Your task to perform on an android device: Go to battery settings Image 0: 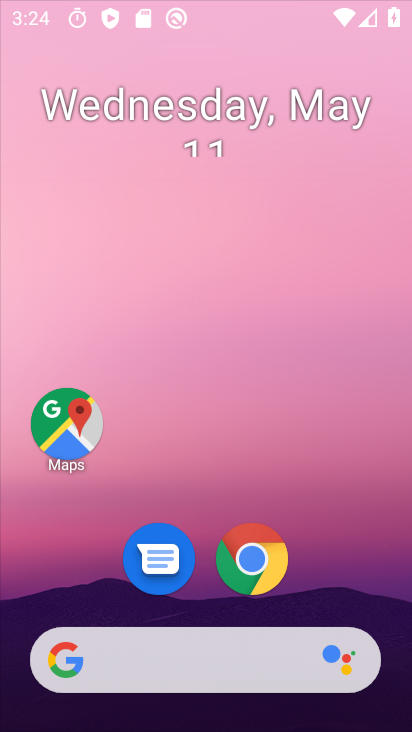
Step 0: press back button
Your task to perform on an android device: Go to battery settings Image 1: 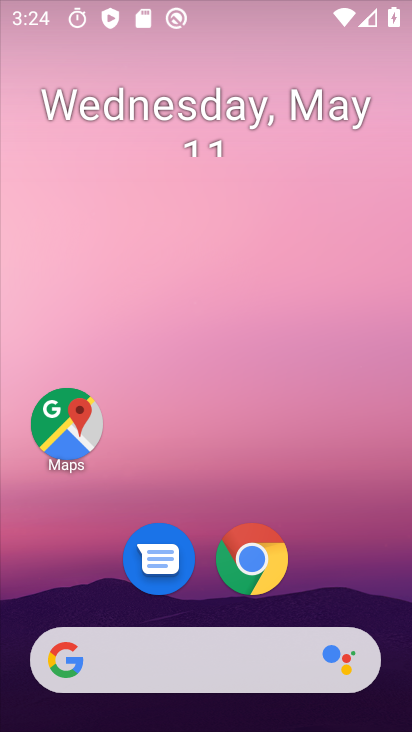
Step 1: click (220, 110)
Your task to perform on an android device: Go to battery settings Image 2: 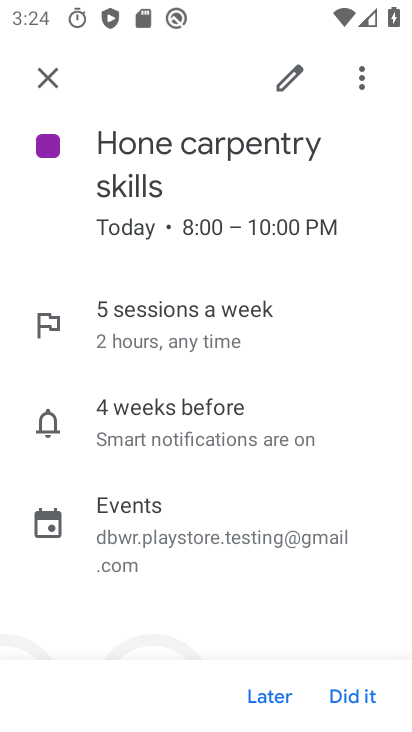
Step 2: click (37, 77)
Your task to perform on an android device: Go to battery settings Image 3: 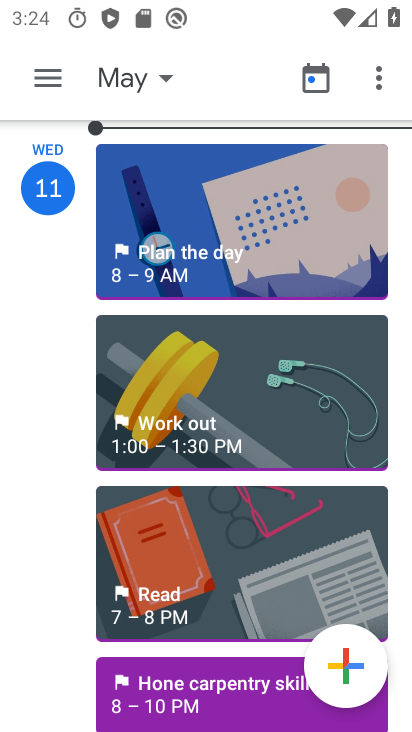
Step 3: click (378, 78)
Your task to perform on an android device: Go to battery settings Image 4: 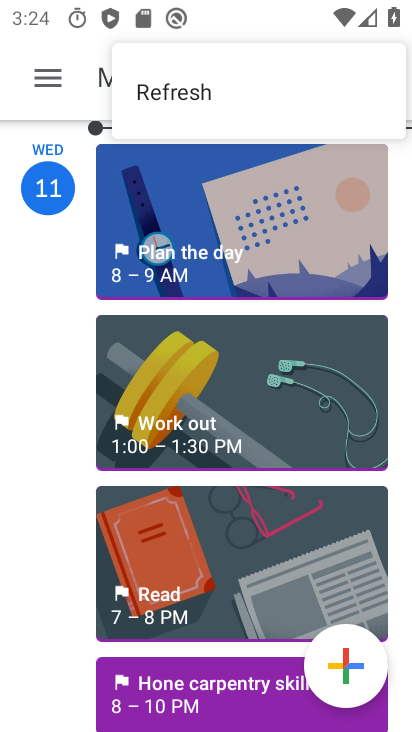
Step 4: click (309, 306)
Your task to perform on an android device: Go to battery settings Image 5: 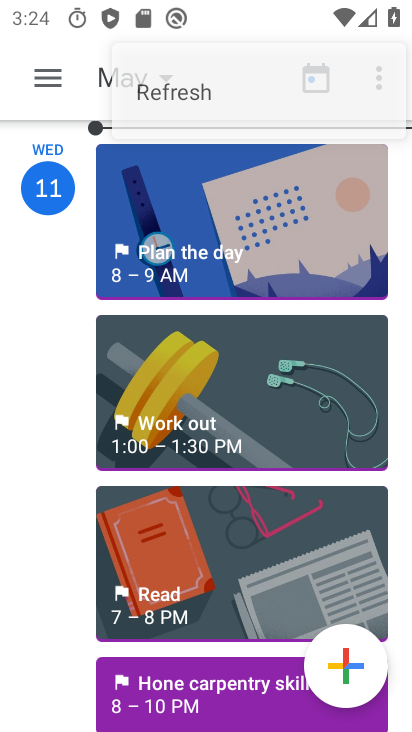
Step 5: click (304, 259)
Your task to perform on an android device: Go to battery settings Image 6: 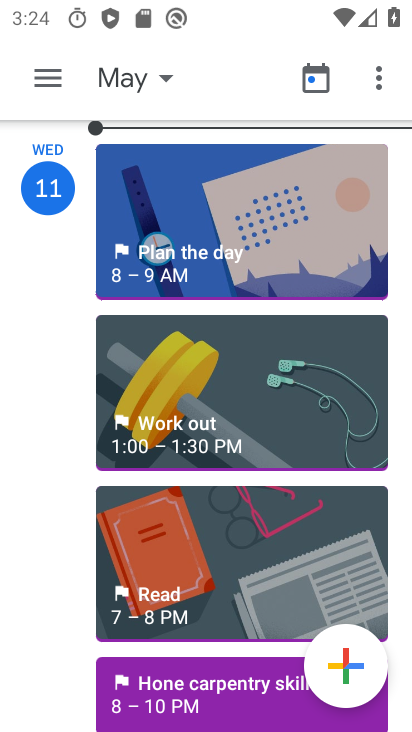
Step 6: click (293, 221)
Your task to perform on an android device: Go to battery settings Image 7: 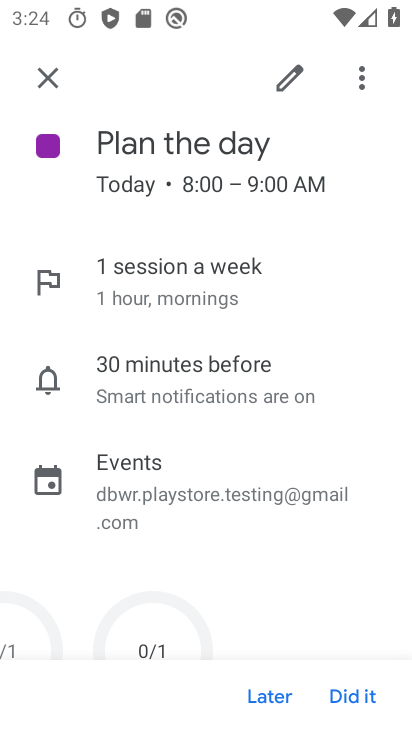
Step 7: press home button
Your task to perform on an android device: Go to battery settings Image 8: 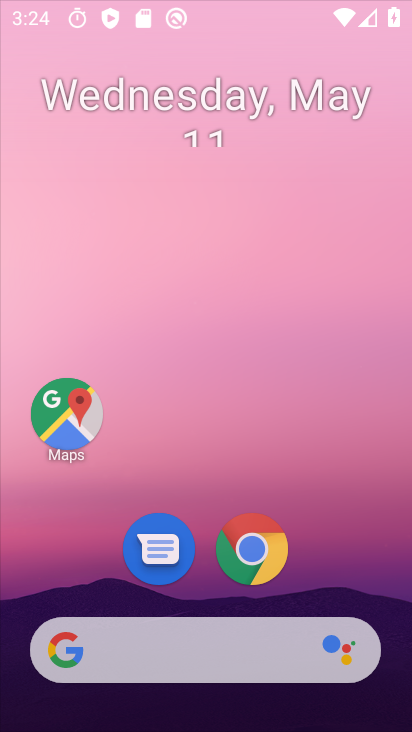
Step 8: press home button
Your task to perform on an android device: Go to battery settings Image 9: 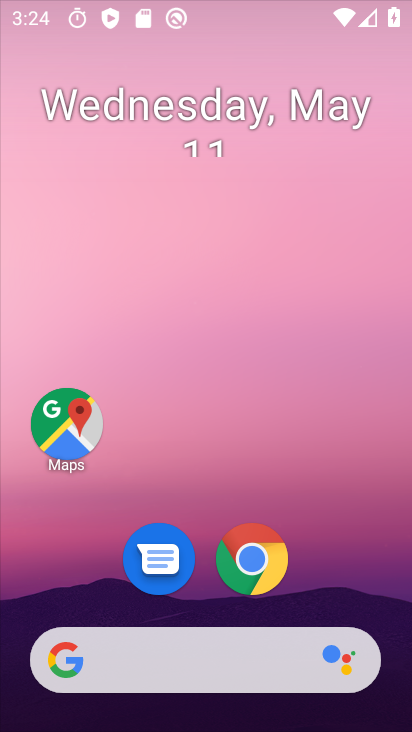
Step 9: press home button
Your task to perform on an android device: Go to battery settings Image 10: 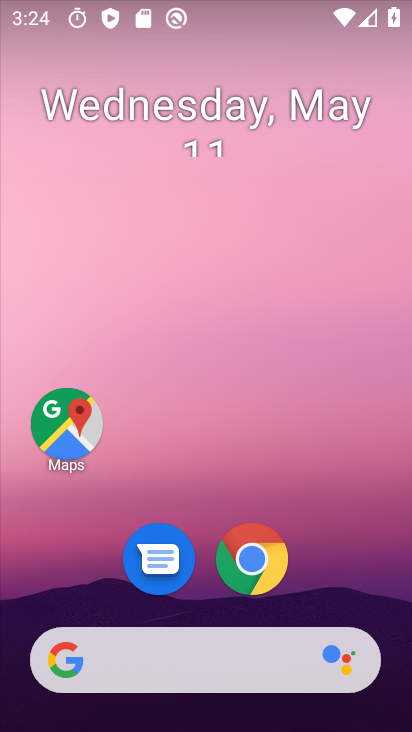
Step 10: drag from (371, 574) to (27, 36)
Your task to perform on an android device: Go to battery settings Image 11: 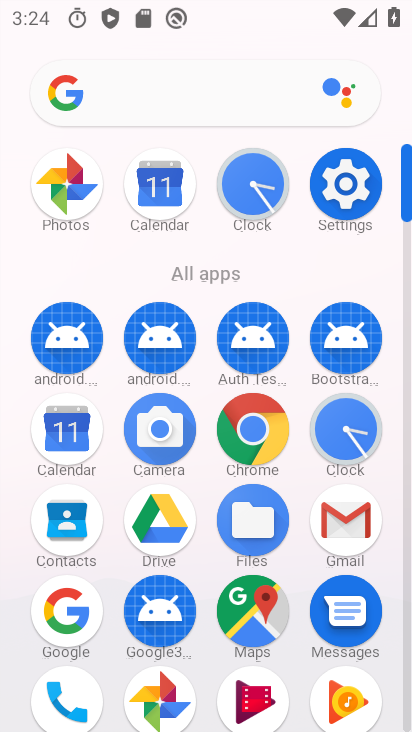
Step 11: click (358, 183)
Your task to perform on an android device: Go to battery settings Image 12: 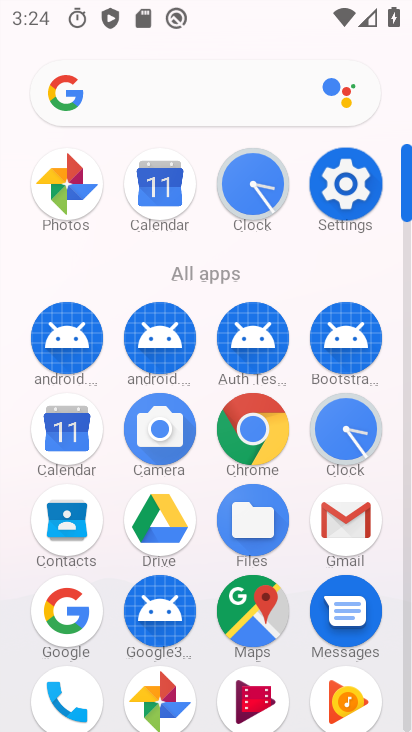
Step 12: click (354, 183)
Your task to perform on an android device: Go to battery settings Image 13: 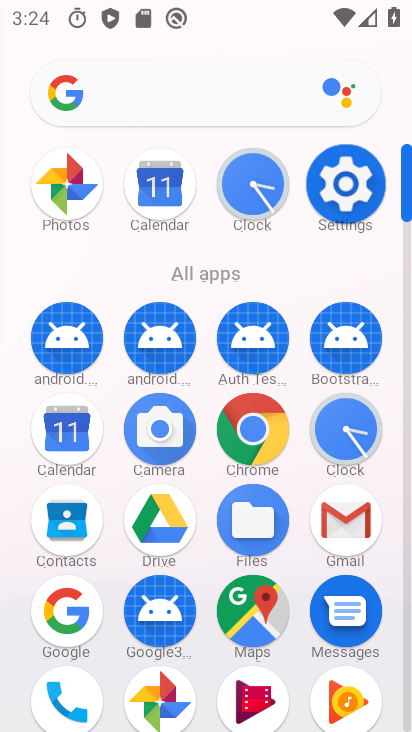
Step 13: click (353, 183)
Your task to perform on an android device: Go to battery settings Image 14: 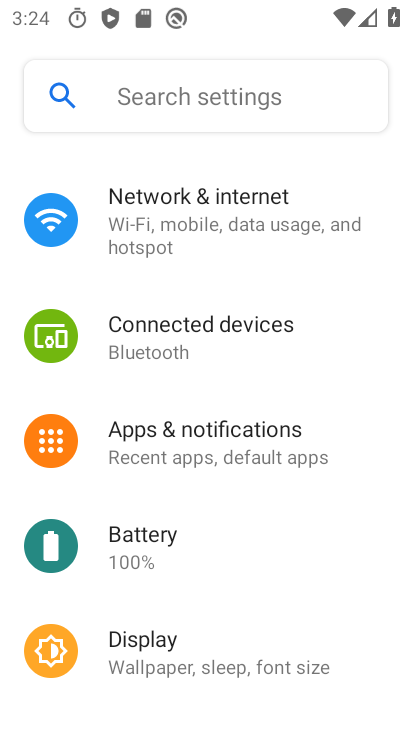
Step 14: click (353, 183)
Your task to perform on an android device: Go to battery settings Image 15: 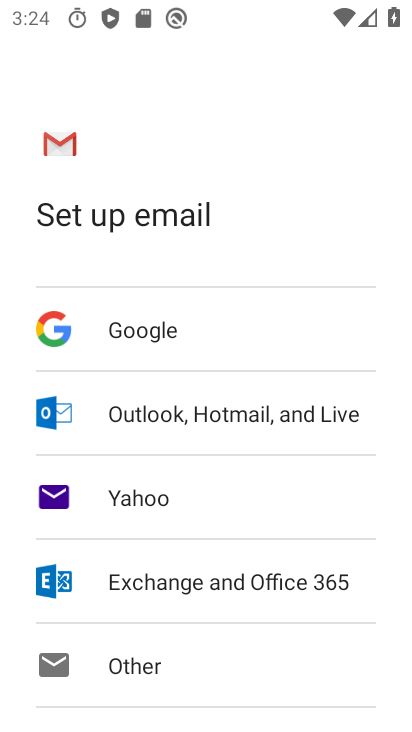
Step 15: press back button
Your task to perform on an android device: Go to battery settings Image 16: 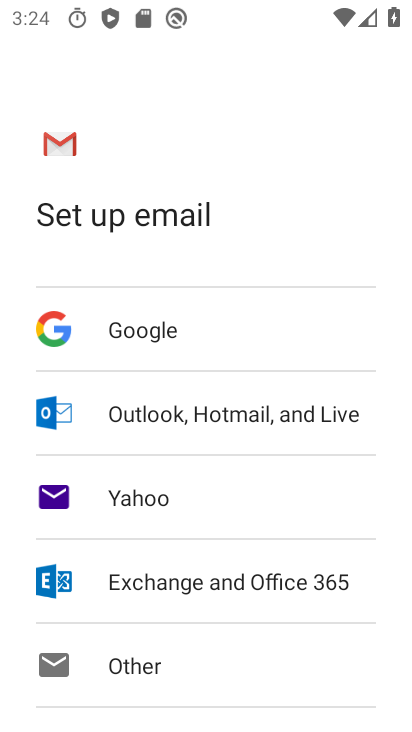
Step 16: press back button
Your task to perform on an android device: Go to battery settings Image 17: 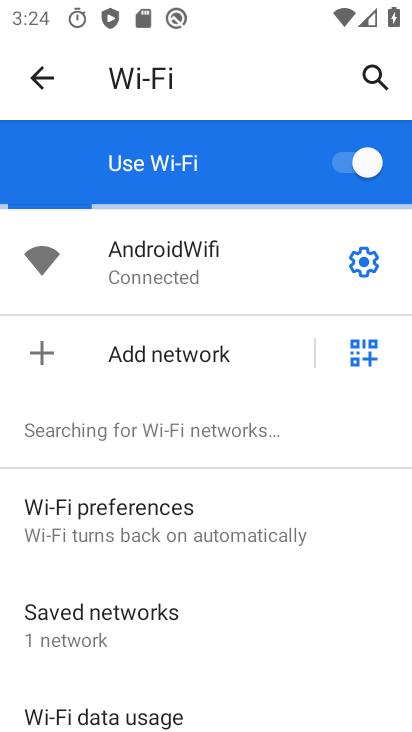
Step 17: press home button
Your task to perform on an android device: Go to battery settings Image 18: 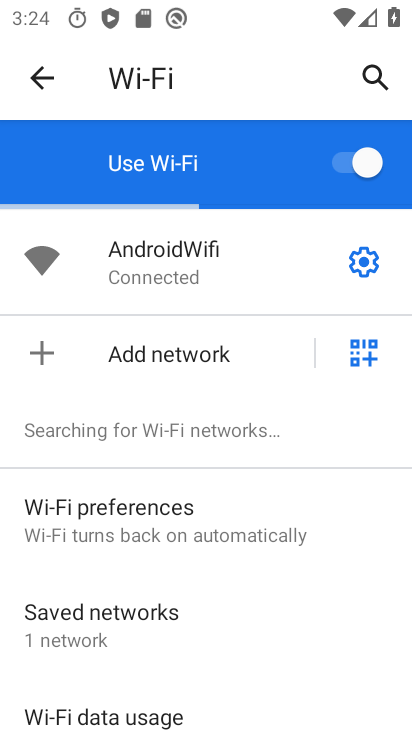
Step 18: press home button
Your task to perform on an android device: Go to battery settings Image 19: 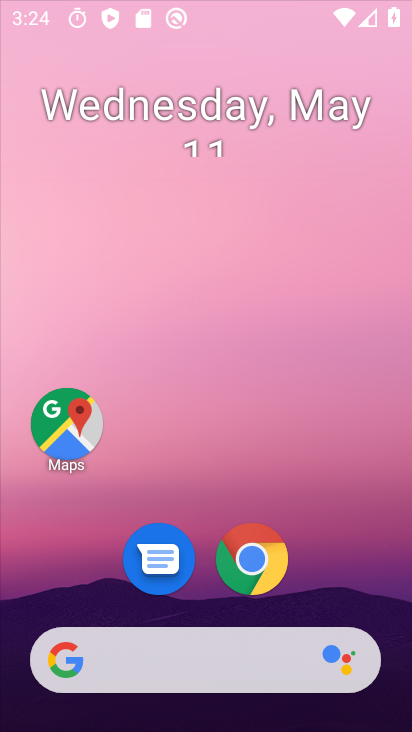
Step 19: press home button
Your task to perform on an android device: Go to battery settings Image 20: 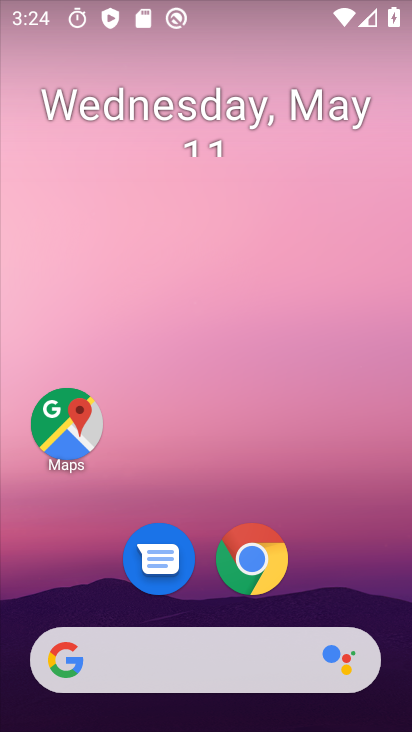
Step 20: drag from (276, 490) to (111, 52)
Your task to perform on an android device: Go to battery settings Image 21: 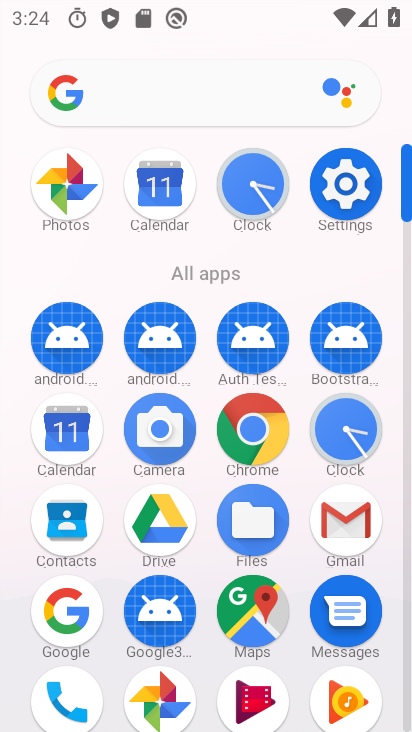
Step 21: click (335, 167)
Your task to perform on an android device: Go to battery settings Image 22: 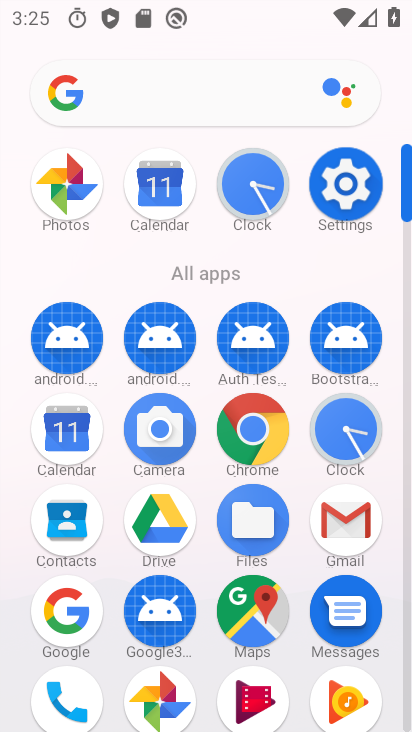
Step 22: click (337, 168)
Your task to perform on an android device: Go to battery settings Image 23: 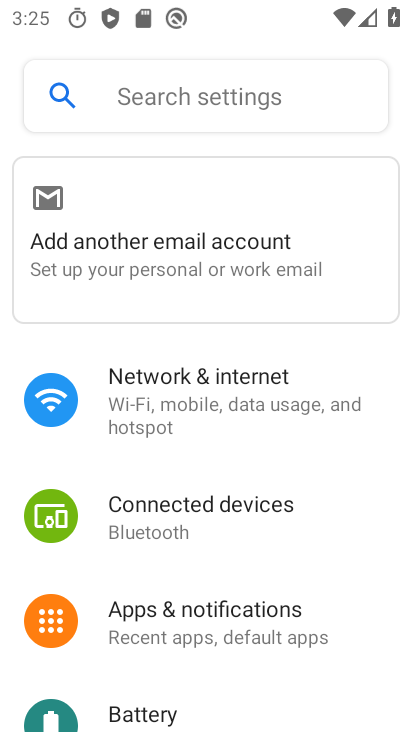
Step 23: drag from (228, 595) to (252, 176)
Your task to perform on an android device: Go to battery settings Image 24: 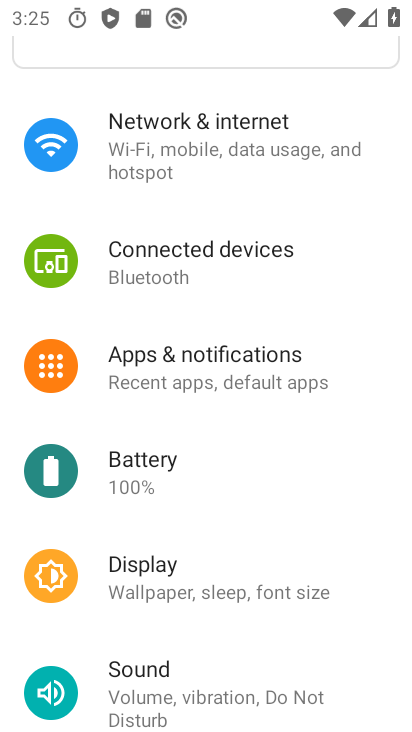
Step 24: drag from (180, 463) to (90, 167)
Your task to perform on an android device: Go to battery settings Image 25: 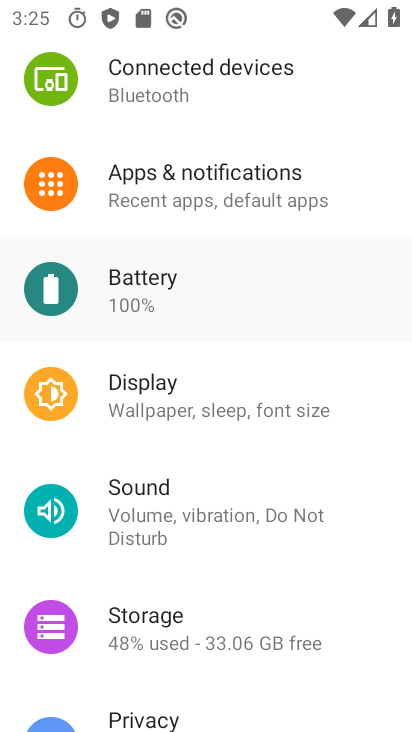
Step 25: drag from (157, 481) to (54, 61)
Your task to perform on an android device: Go to battery settings Image 26: 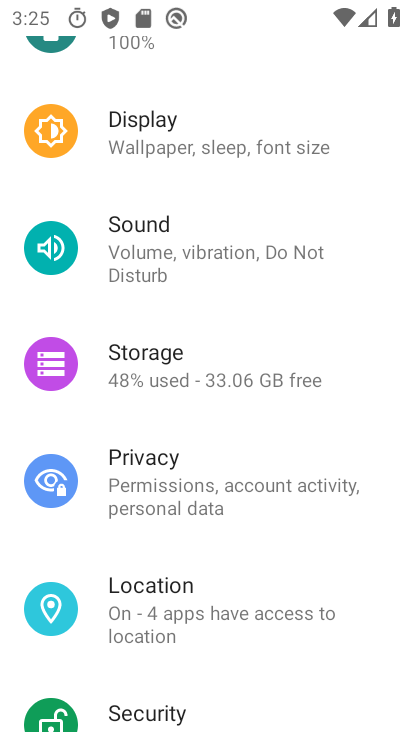
Step 26: drag from (185, 168) to (181, 512)
Your task to perform on an android device: Go to battery settings Image 27: 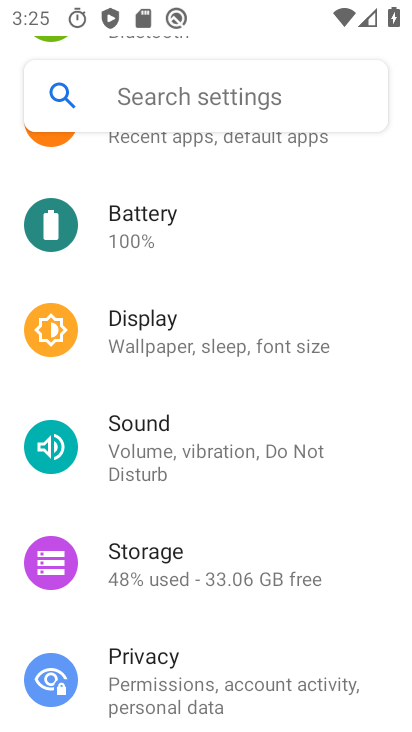
Step 27: drag from (172, 279) to (220, 553)
Your task to perform on an android device: Go to battery settings Image 28: 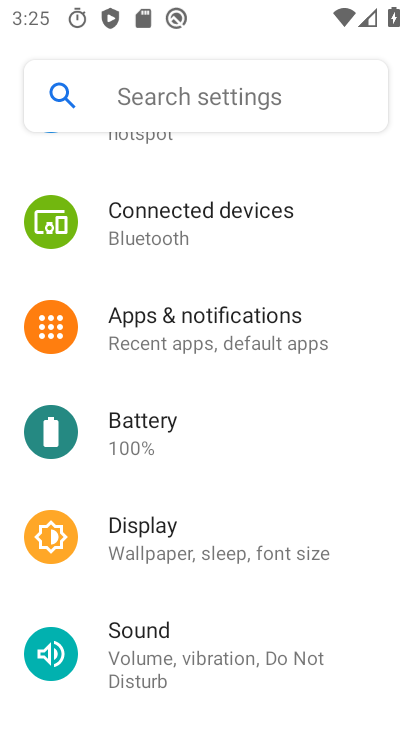
Step 28: click (148, 436)
Your task to perform on an android device: Go to battery settings Image 29: 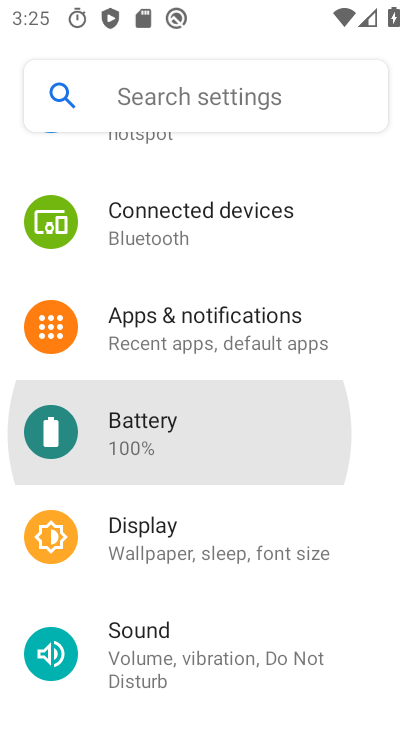
Step 29: click (147, 435)
Your task to perform on an android device: Go to battery settings Image 30: 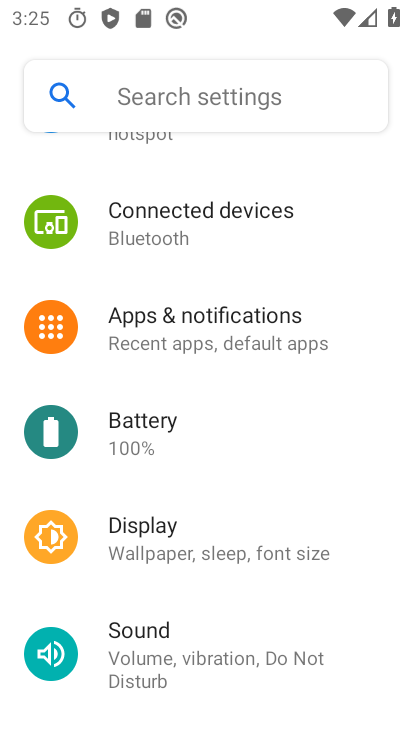
Step 30: click (145, 435)
Your task to perform on an android device: Go to battery settings Image 31: 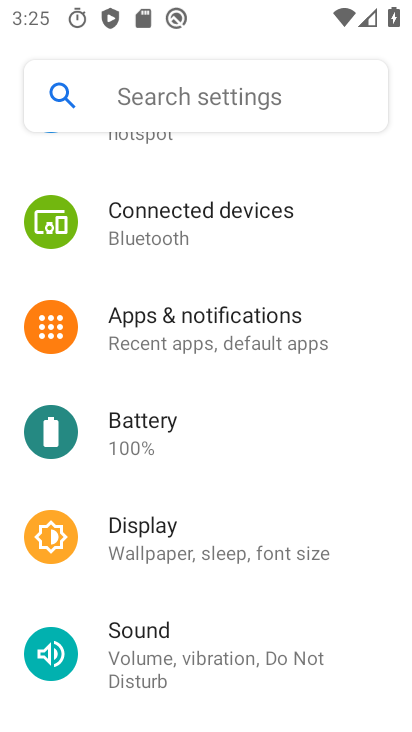
Step 31: click (144, 435)
Your task to perform on an android device: Go to battery settings Image 32: 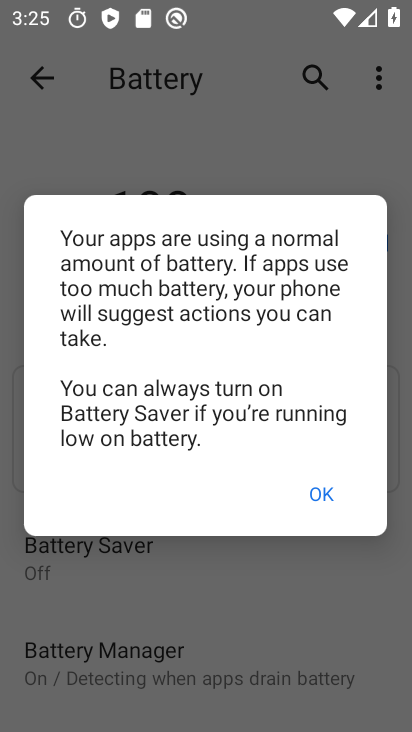
Step 32: click (319, 489)
Your task to perform on an android device: Go to battery settings Image 33: 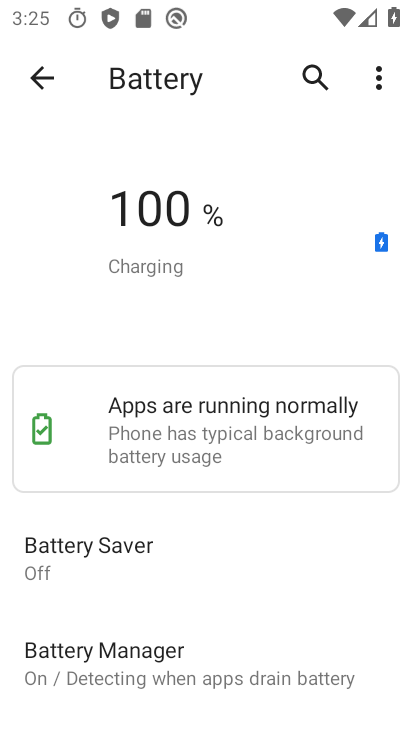
Step 33: task complete